Your task to perform on an android device: Turn off the flashlight Image 0: 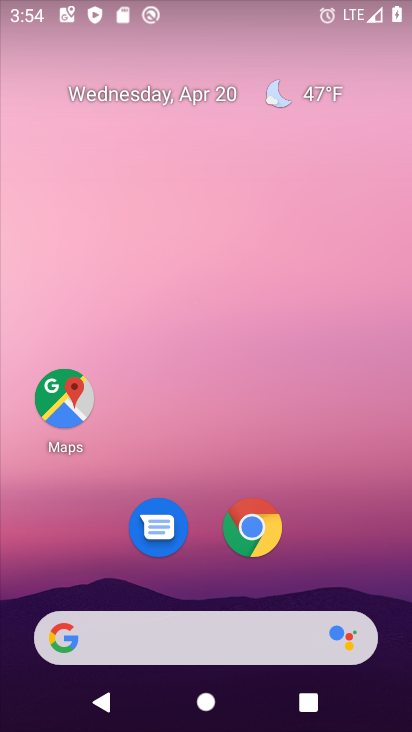
Step 0: drag from (348, 480) to (345, 73)
Your task to perform on an android device: Turn off the flashlight Image 1: 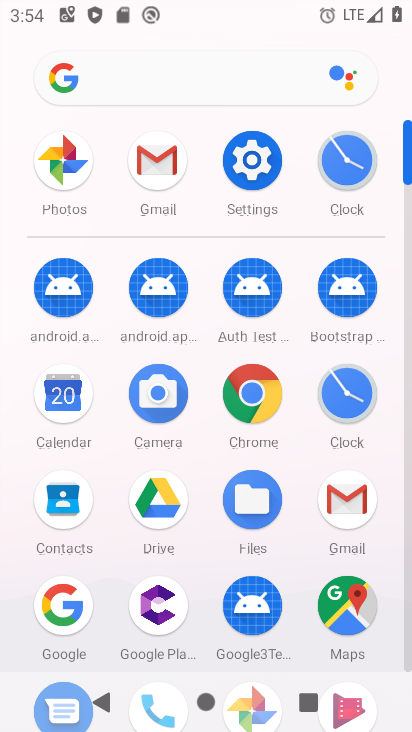
Step 1: click (257, 152)
Your task to perform on an android device: Turn off the flashlight Image 2: 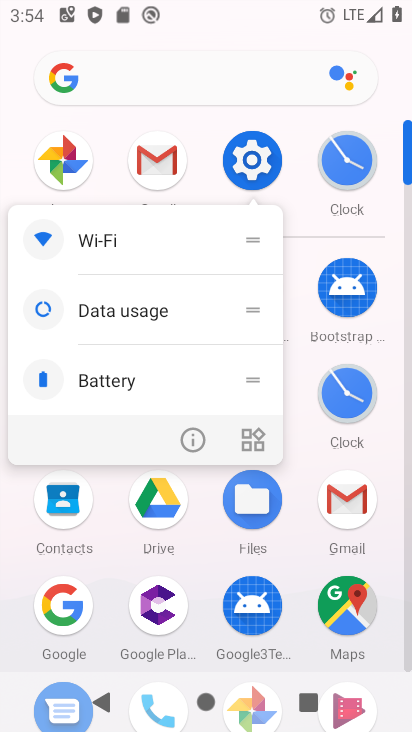
Step 2: click (240, 178)
Your task to perform on an android device: Turn off the flashlight Image 3: 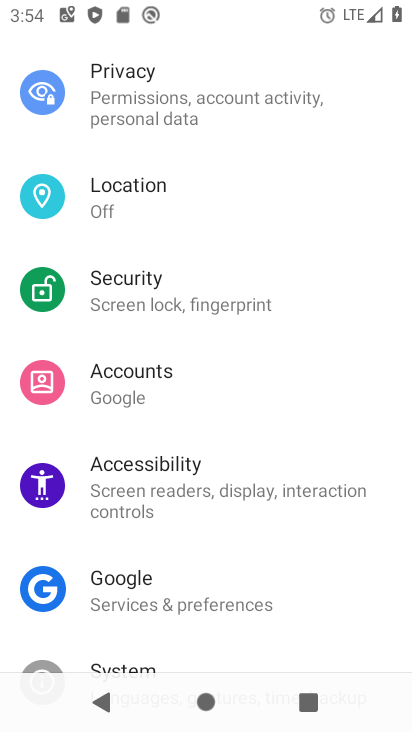
Step 3: drag from (227, 175) to (249, 583)
Your task to perform on an android device: Turn off the flashlight Image 4: 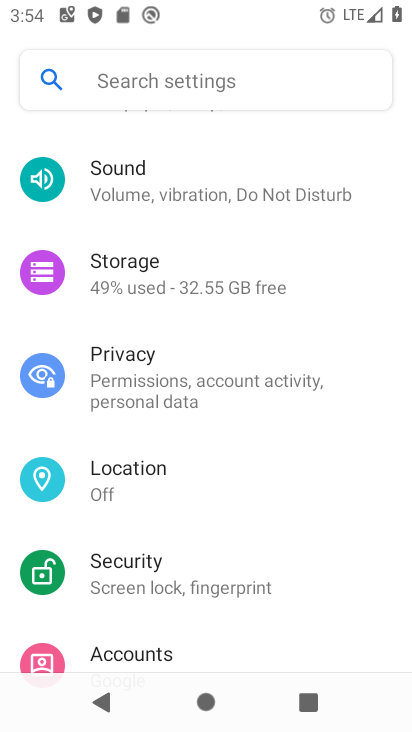
Step 4: click (188, 93)
Your task to perform on an android device: Turn off the flashlight Image 5: 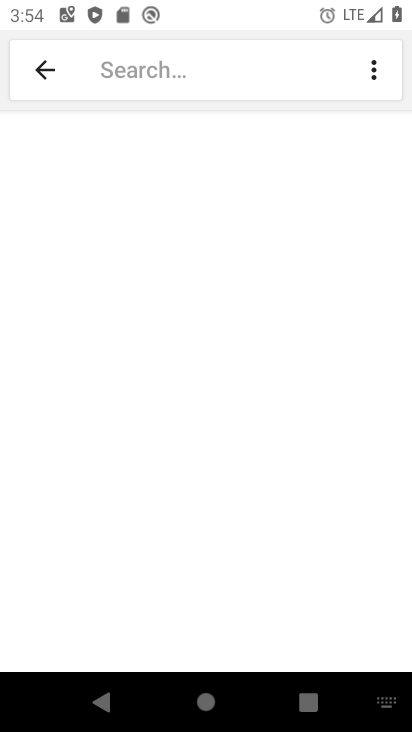
Step 5: type "flashlight"
Your task to perform on an android device: Turn off the flashlight Image 6: 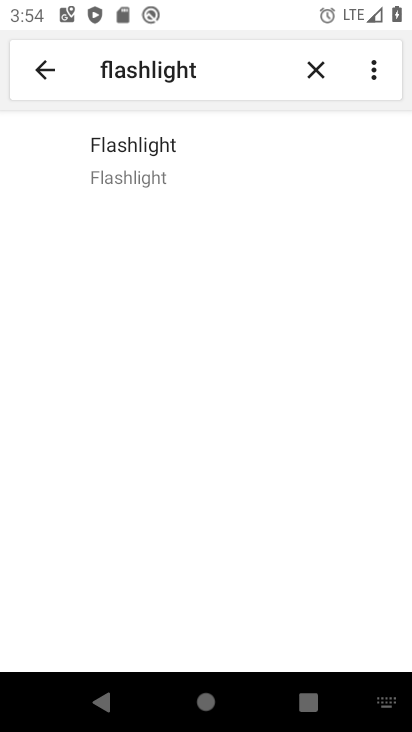
Step 6: click (116, 169)
Your task to perform on an android device: Turn off the flashlight Image 7: 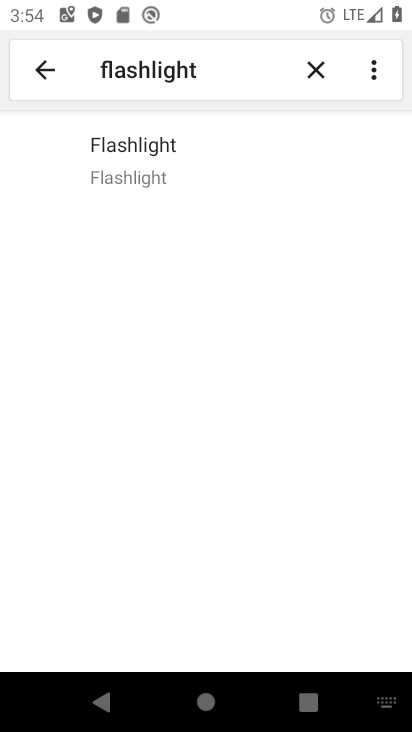
Step 7: task complete